Your task to perform on an android device: Go to Reddit.com Image 0: 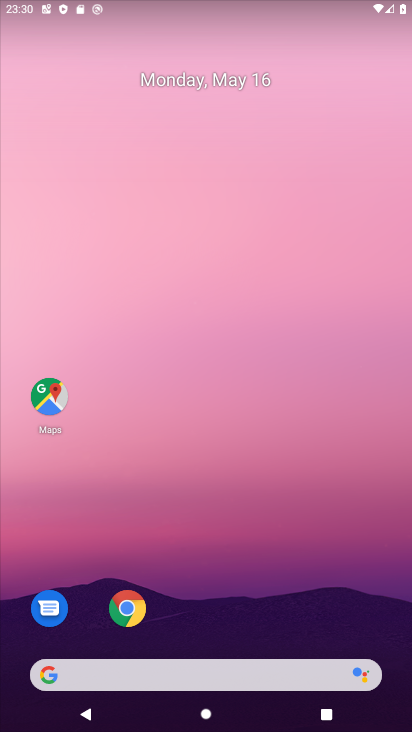
Step 0: drag from (159, 676) to (285, 214)
Your task to perform on an android device: Go to Reddit.com Image 1: 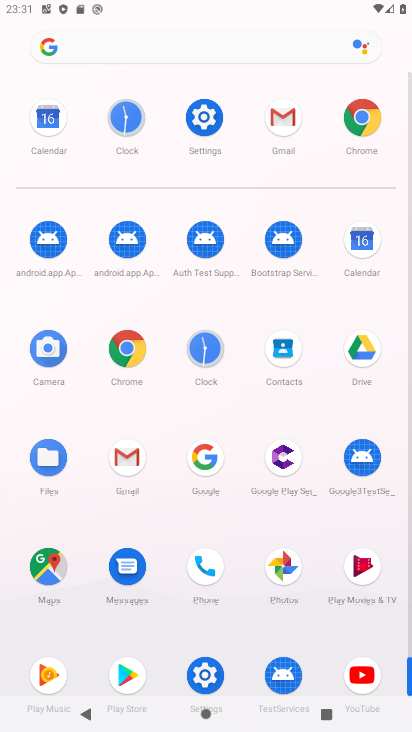
Step 1: click (365, 128)
Your task to perform on an android device: Go to Reddit.com Image 2: 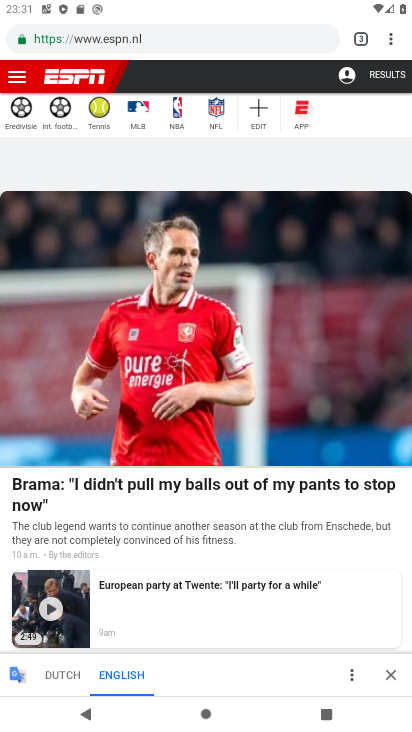
Step 2: drag from (390, 39) to (303, 75)
Your task to perform on an android device: Go to Reddit.com Image 3: 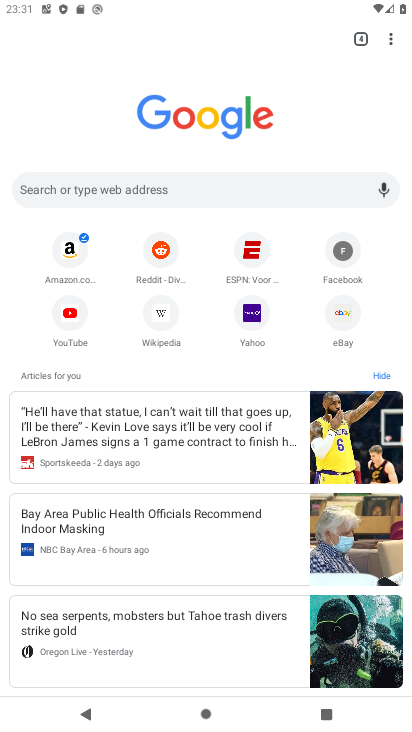
Step 3: click (143, 190)
Your task to perform on an android device: Go to Reddit.com Image 4: 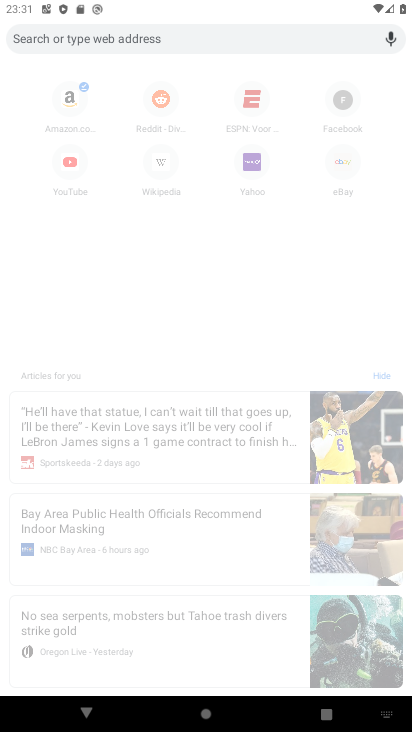
Step 4: type "reddit.com"
Your task to perform on an android device: Go to Reddit.com Image 5: 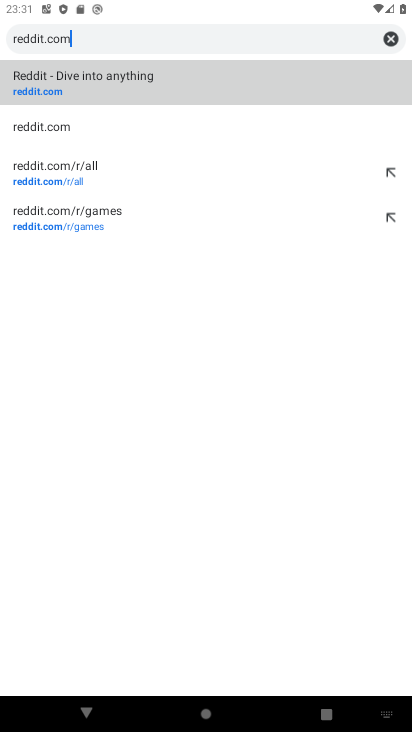
Step 5: click (90, 88)
Your task to perform on an android device: Go to Reddit.com Image 6: 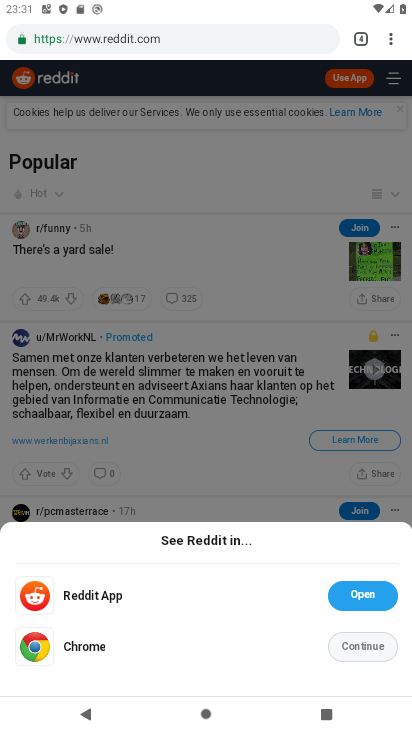
Step 6: task complete